Your task to perform on an android device: Add acer nitro to the cart on target.com, then select checkout. Image 0: 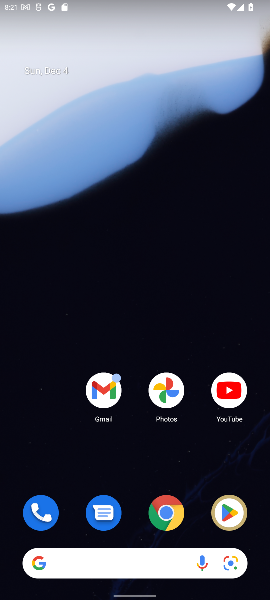
Step 0: click (165, 512)
Your task to perform on an android device: Add acer nitro to the cart on target.com, then select checkout. Image 1: 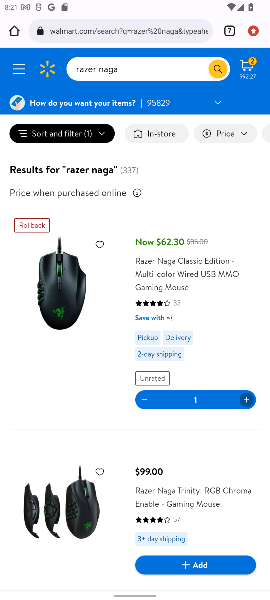
Step 1: click (226, 35)
Your task to perform on an android device: Add acer nitro to the cart on target.com, then select checkout. Image 2: 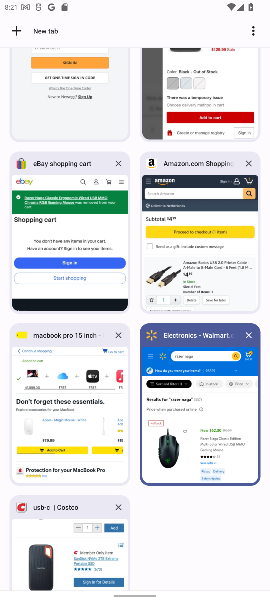
Step 2: click (55, 102)
Your task to perform on an android device: Add acer nitro to the cart on target.com, then select checkout. Image 3: 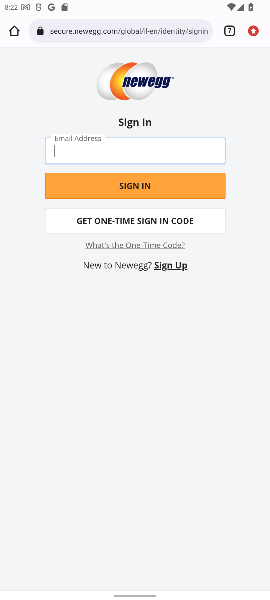
Step 3: press back button
Your task to perform on an android device: Add acer nitro to the cart on target.com, then select checkout. Image 4: 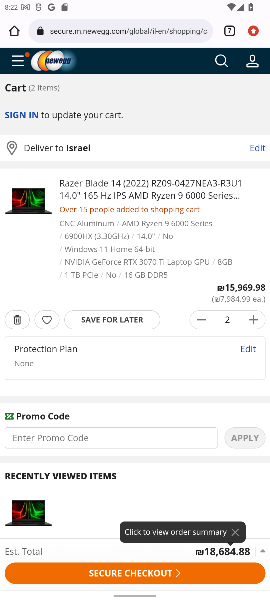
Step 4: click (221, 64)
Your task to perform on an android device: Add acer nitro to the cart on target.com, then select checkout. Image 5: 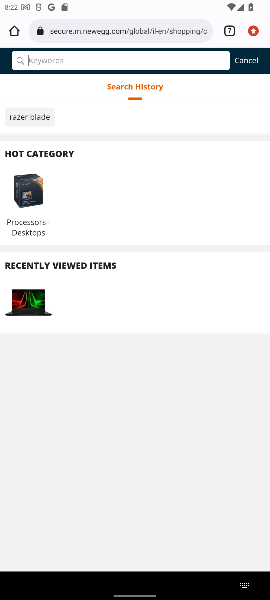
Step 5: type "acer nitro"
Your task to perform on an android device: Add acer nitro to the cart on target.com, then select checkout. Image 6: 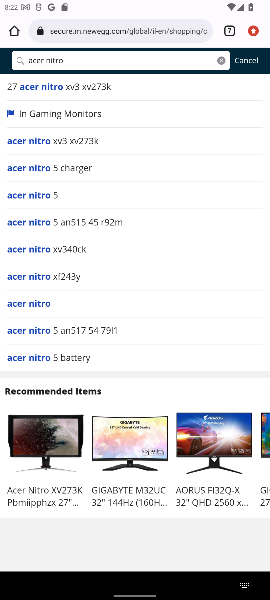
Step 6: click (44, 84)
Your task to perform on an android device: Add acer nitro to the cart on target.com, then select checkout. Image 7: 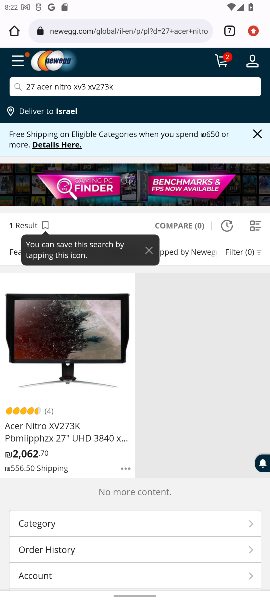
Step 7: click (60, 434)
Your task to perform on an android device: Add acer nitro to the cart on target.com, then select checkout. Image 8: 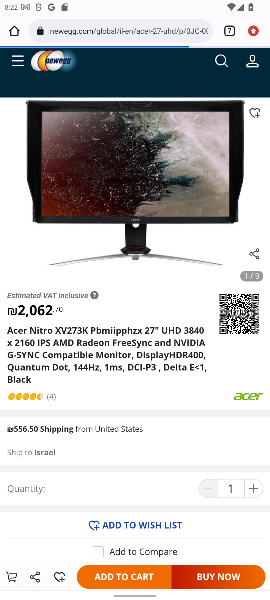
Step 8: click (60, 434)
Your task to perform on an android device: Add acer nitro to the cart on target.com, then select checkout. Image 9: 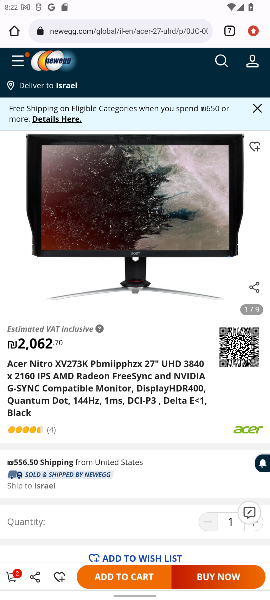
Step 9: click (125, 572)
Your task to perform on an android device: Add acer nitro to the cart on target.com, then select checkout. Image 10: 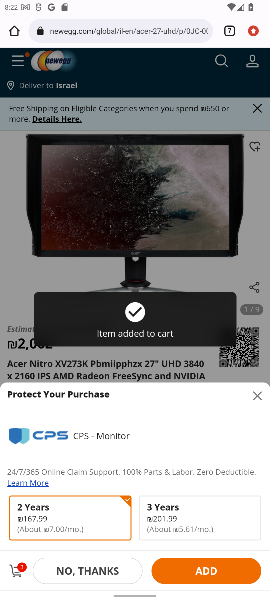
Step 10: click (15, 578)
Your task to perform on an android device: Add acer nitro to the cart on target.com, then select checkout. Image 11: 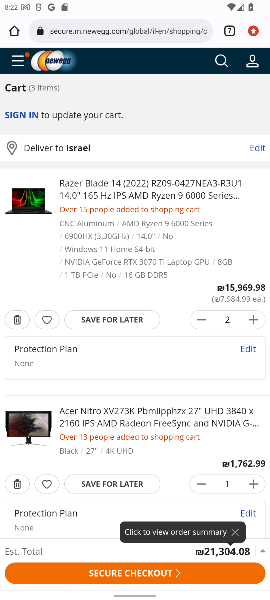
Step 11: click (168, 571)
Your task to perform on an android device: Add acer nitro to the cart on target.com, then select checkout. Image 12: 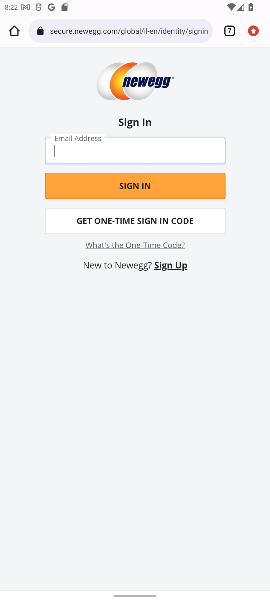
Step 12: task complete